Your task to perform on an android device: What is the recent news? Image 0: 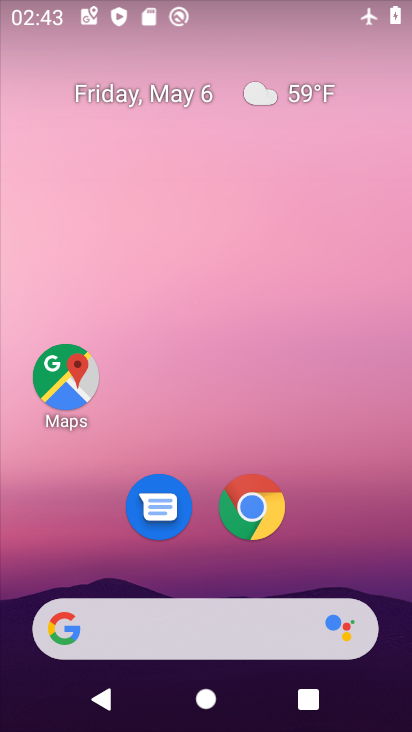
Step 0: click (269, 520)
Your task to perform on an android device: What is the recent news? Image 1: 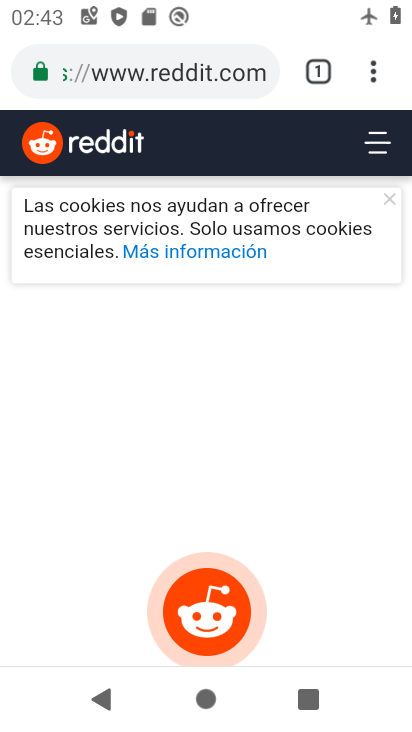
Step 1: click (208, 76)
Your task to perform on an android device: What is the recent news? Image 2: 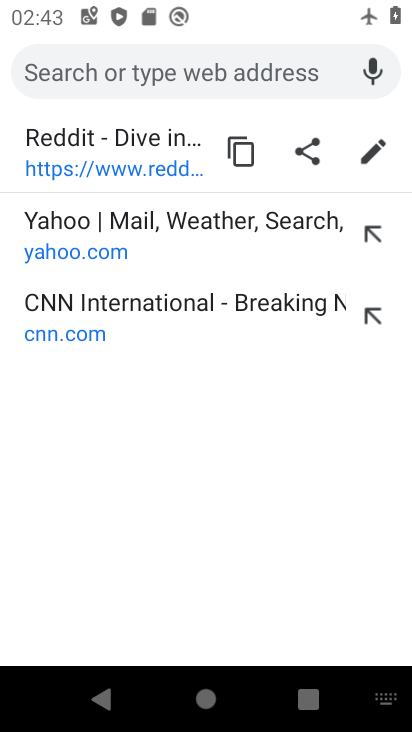
Step 2: type "recent news"
Your task to perform on an android device: What is the recent news? Image 3: 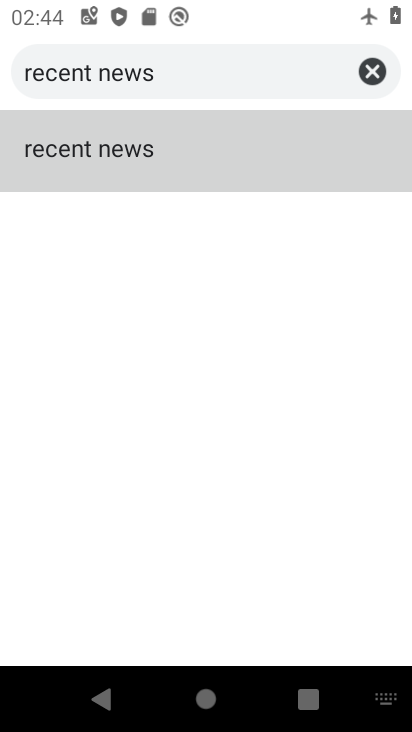
Step 3: click (137, 160)
Your task to perform on an android device: What is the recent news? Image 4: 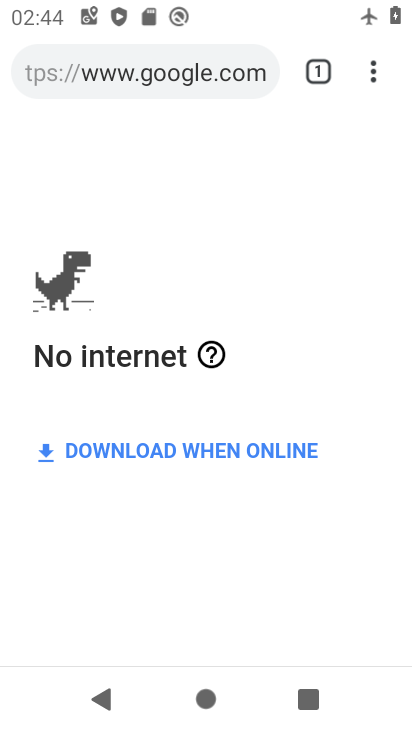
Step 4: task complete